Your task to perform on an android device: Search for sushi restaurants on Maps Image 0: 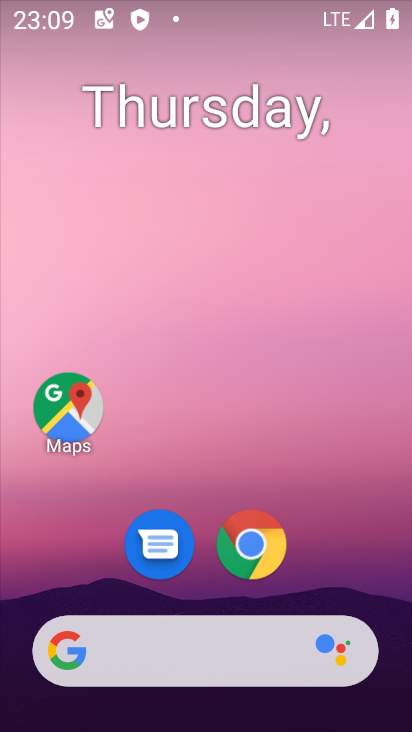
Step 0: click (82, 382)
Your task to perform on an android device: Search for sushi restaurants on Maps Image 1: 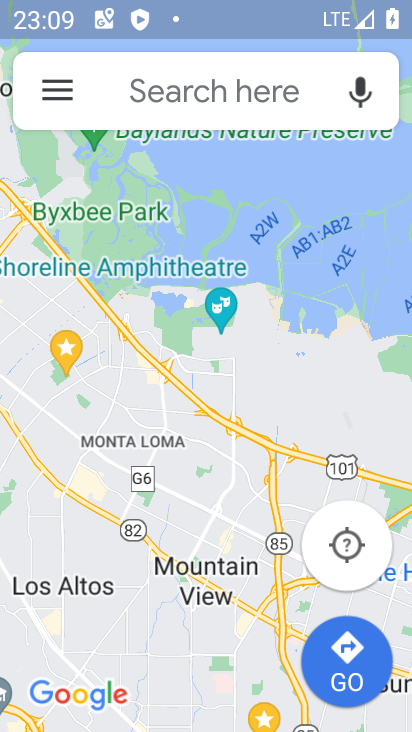
Step 1: click (163, 92)
Your task to perform on an android device: Search for sushi restaurants on Maps Image 2: 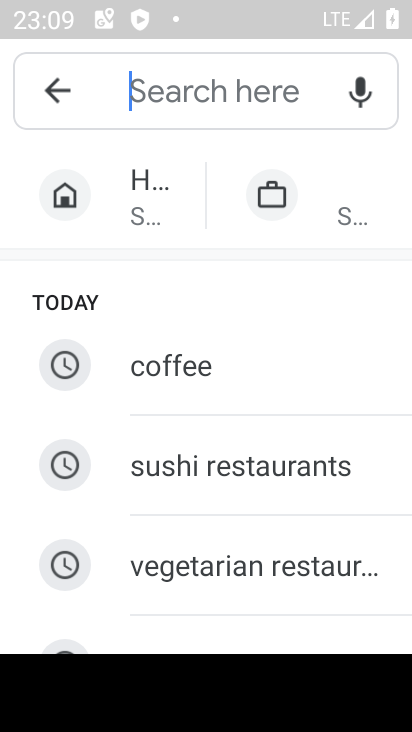
Step 2: click (211, 476)
Your task to perform on an android device: Search for sushi restaurants on Maps Image 3: 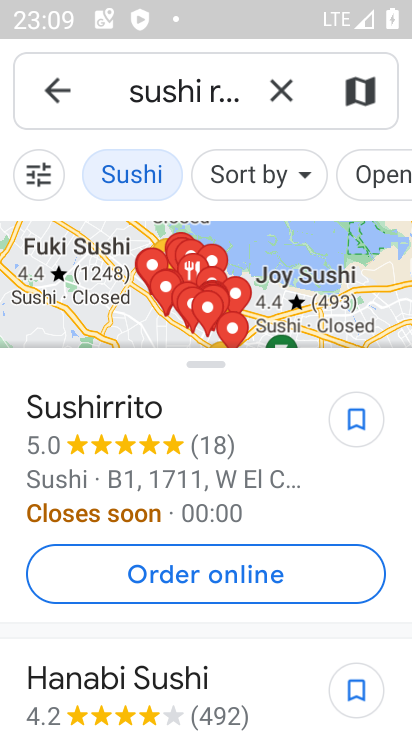
Step 3: task complete